Your task to perform on an android device: toggle sleep mode Image 0: 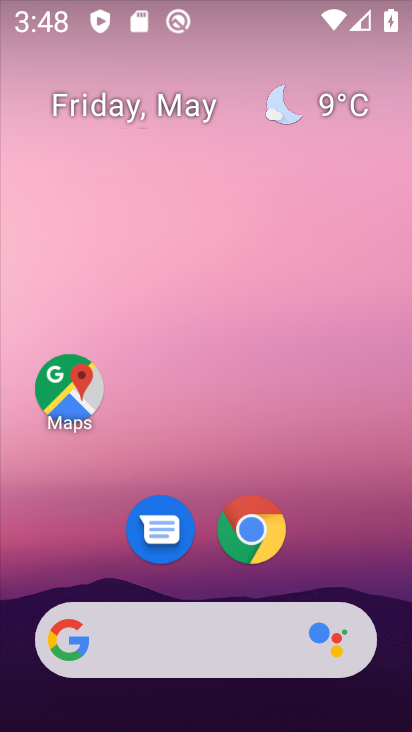
Step 0: drag from (49, 587) to (203, 191)
Your task to perform on an android device: toggle sleep mode Image 1: 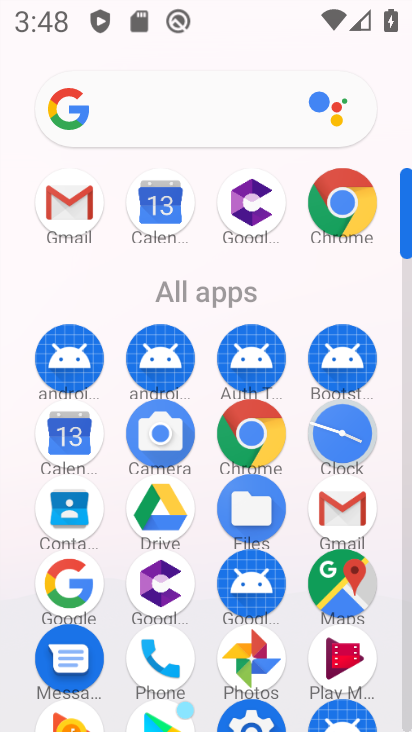
Step 1: click (206, 192)
Your task to perform on an android device: toggle sleep mode Image 2: 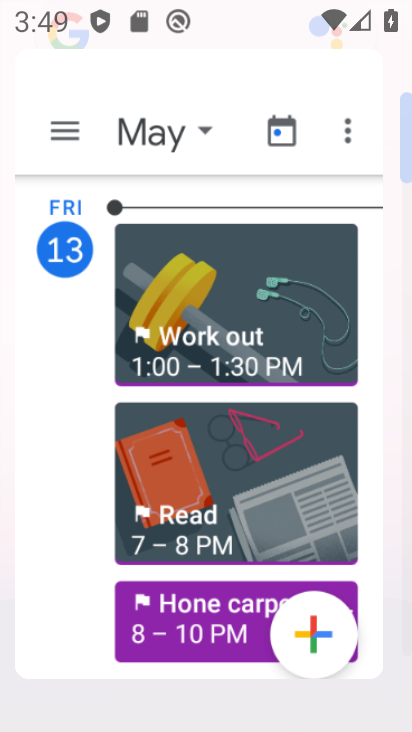
Step 2: drag from (166, 584) to (239, 389)
Your task to perform on an android device: toggle sleep mode Image 3: 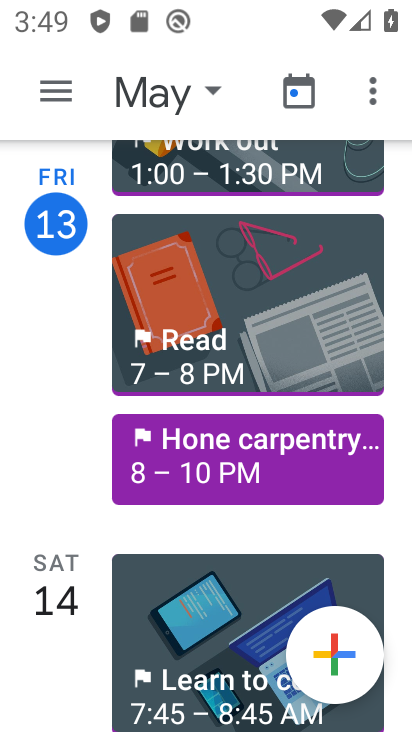
Step 3: press back button
Your task to perform on an android device: toggle sleep mode Image 4: 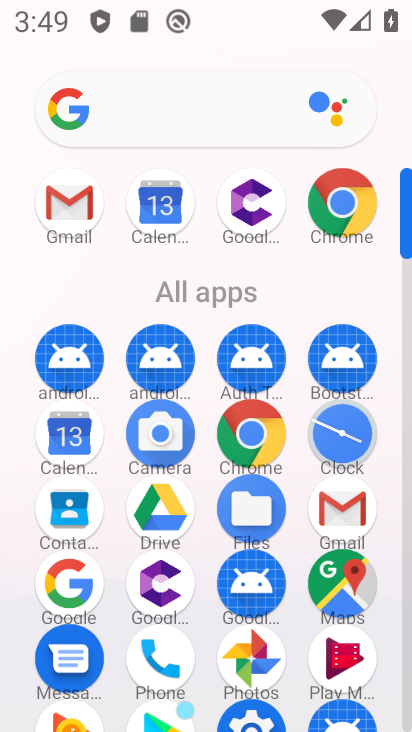
Step 4: drag from (197, 658) to (247, 491)
Your task to perform on an android device: toggle sleep mode Image 5: 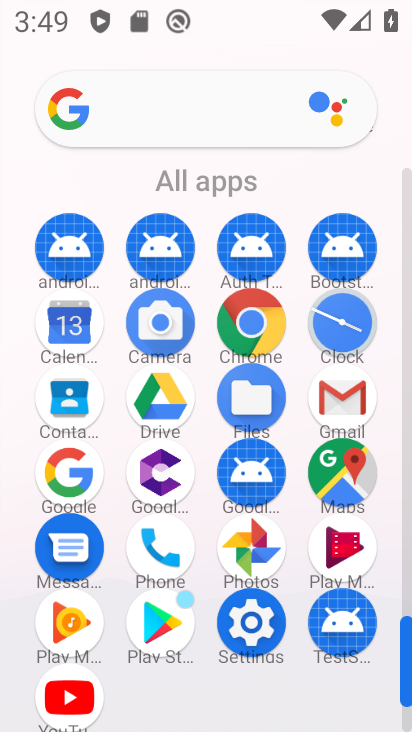
Step 5: click (250, 638)
Your task to perform on an android device: toggle sleep mode Image 6: 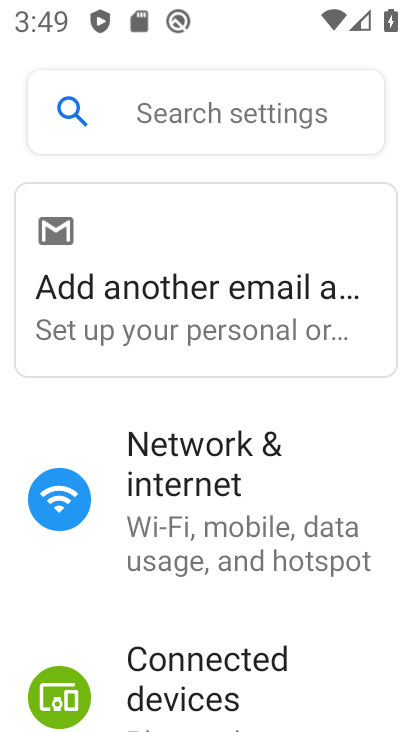
Step 6: click (299, 536)
Your task to perform on an android device: toggle sleep mode Image 7: 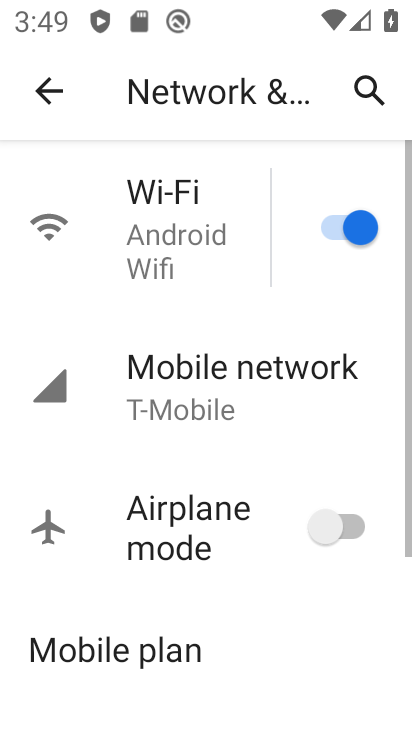
Step 7: drag from (298, 536) to (394, 317)
Your task to perform on an android device: toggle sleep mode Image 8: 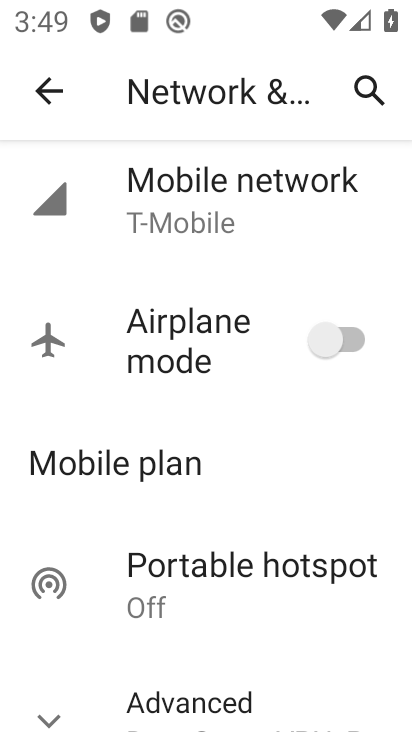
Step 8: drag from (280, 542) to (397, 292)
Your task to perform on an android device: toggle sleep mode Image 9: 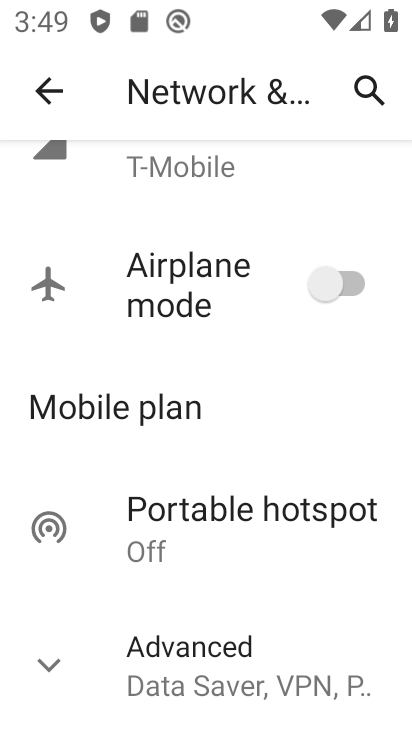
Step 9: click (191, 658)
Your task to perform on an android device: toggle sleep mode Image 10: 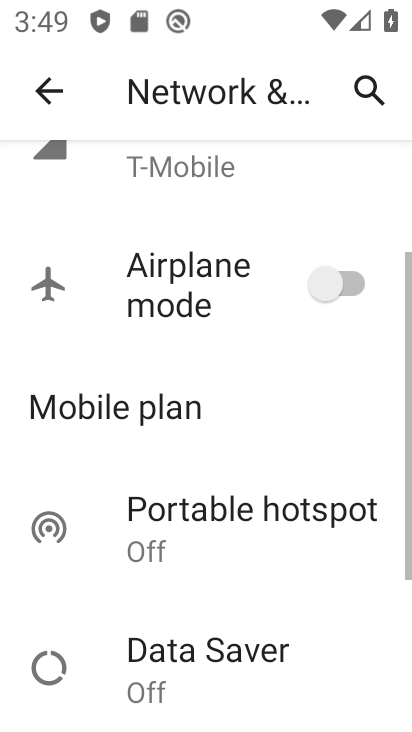
Step 10: task complete